Your task to perform on an android device: View the shopping cart on costco. Image 0: 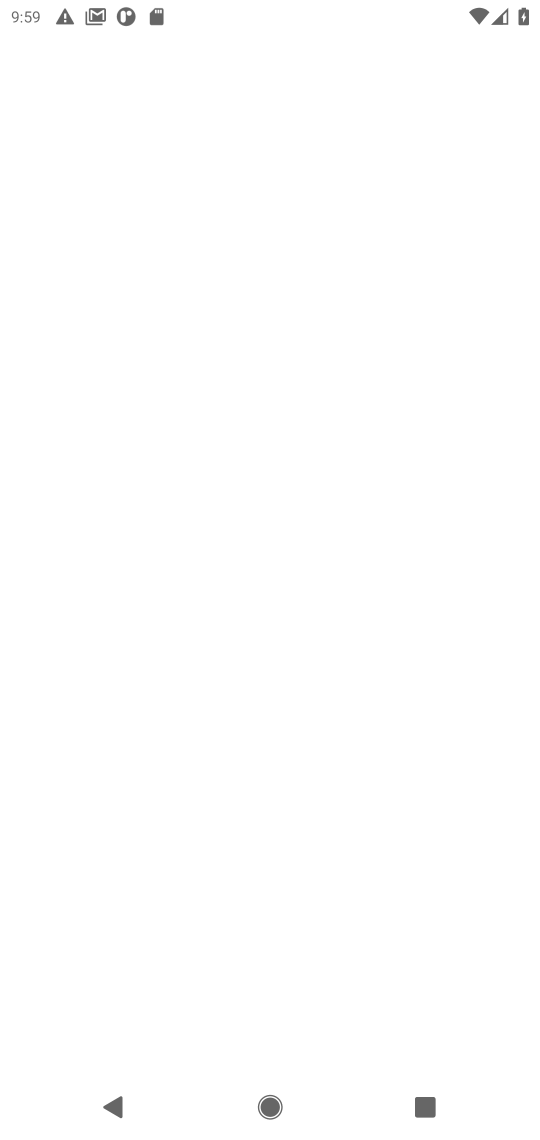
Step 0: task impossible